Your task to perform on an android device: clear all cookies in the chrome app Image 0: 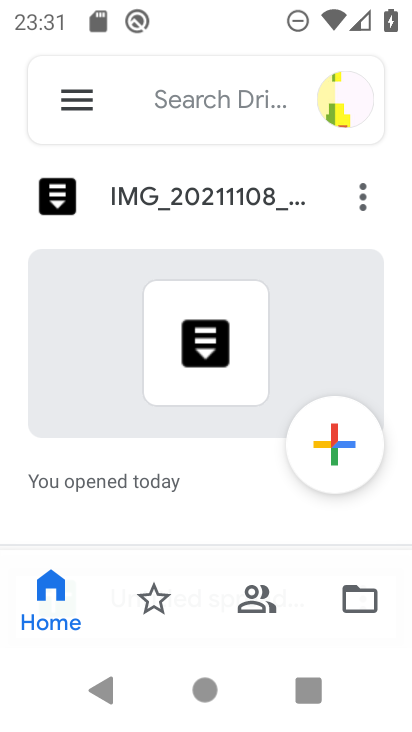
Step 0: drag from (185, 492) to (260, 120)
Your task to perform on an android device: clear all cookies in the chrome app Image 1: 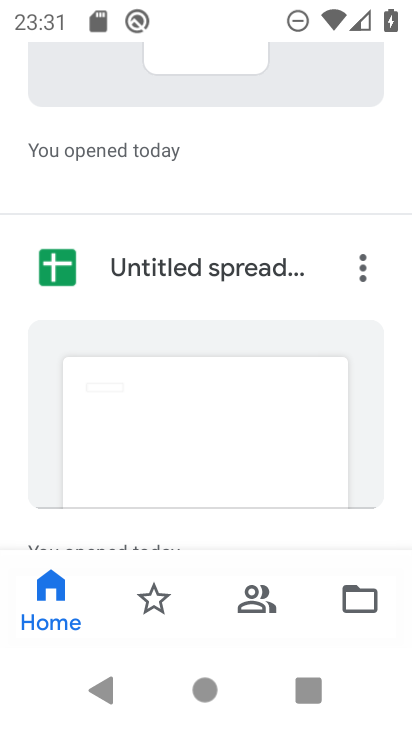
Step 1: press home button
Your task to perform on an android device: clear all cookies in the chrome app Image 2: 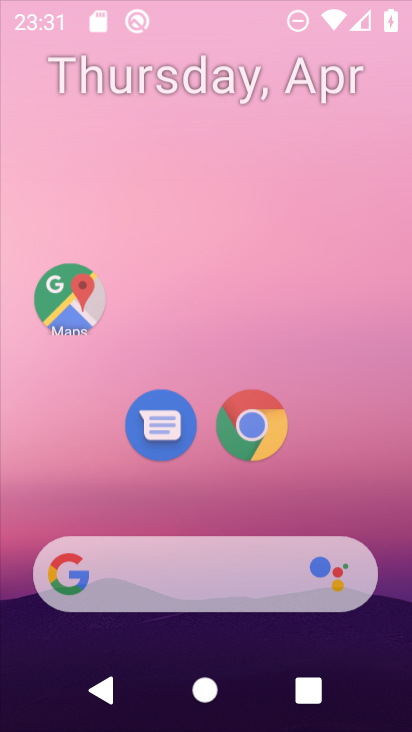
Step 2: drag from (187, 533) to (147, 46)
Your task to perform on an android device: clear all cookies in the chrome app Image 3: 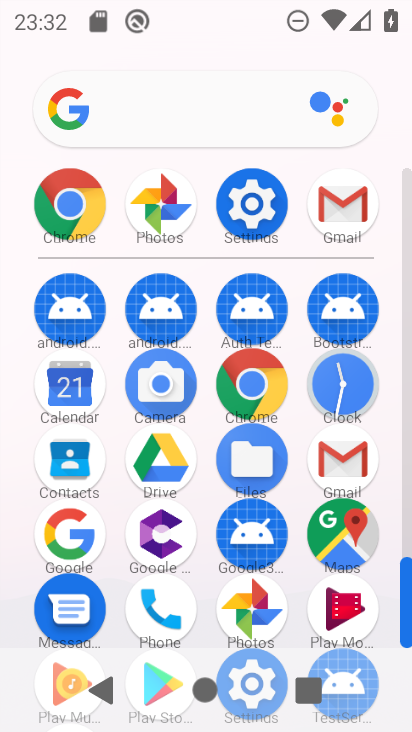
Step 3: click (252, 375)
Your task to perform on an android device: clear all cookies in the chrome app Image 4: 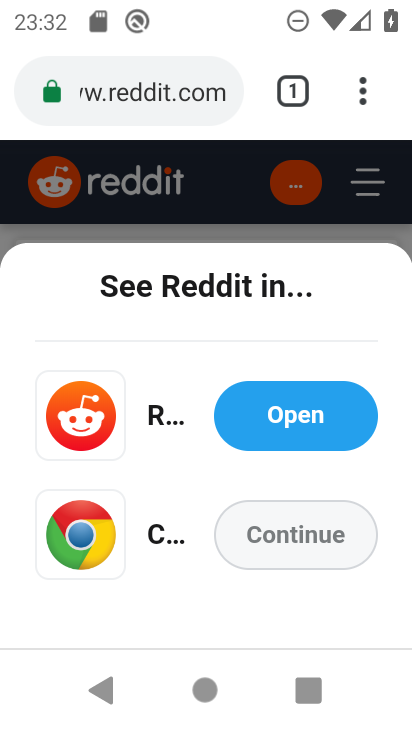
Step 4: drag from (360, 93) to (91, 264)
Your task to perform on an android device: clear all cookies in the chrome app Image 5: 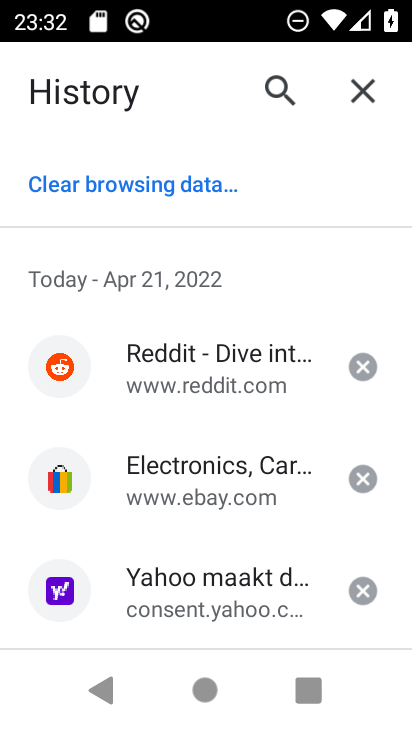
Step 5: click (159, 192)
Your task to perform on an android device: clear all cookies in the chrome app Image 6: 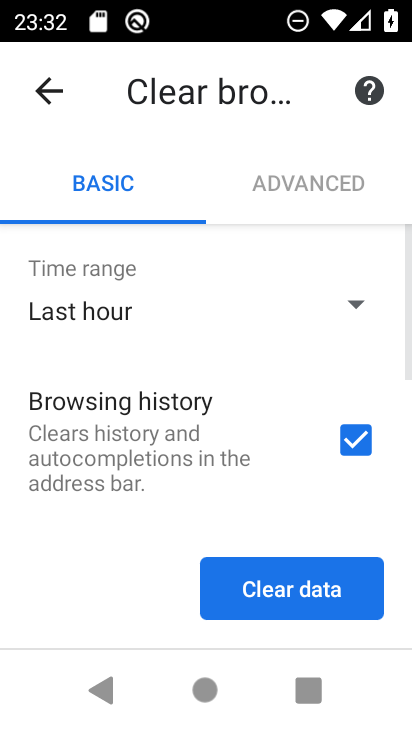
Step 6: drag from (273, 439) to (331, 204)
Your task to perform on an android device: clear all cookies in the chrome app Image 7: 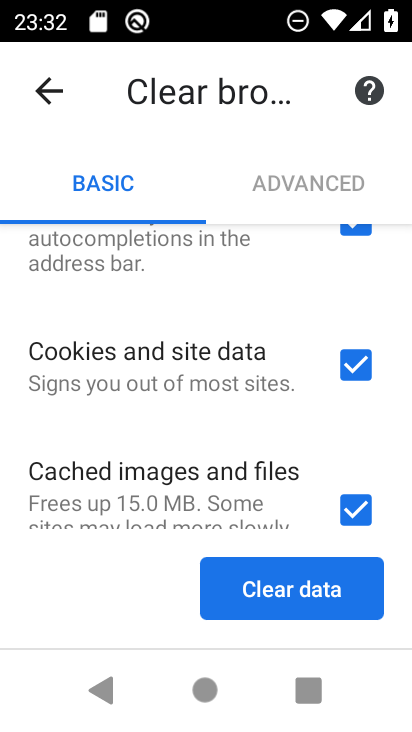
Step 7: click (353, 233)
Your task to perform on an android device: clear all cookies in the chrome app Image 8: 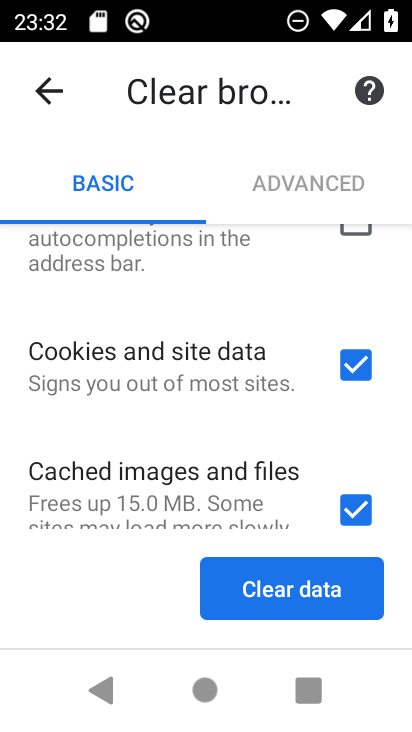
Step 8: click (356, 490)
Your task to perform on an android device: clear all cookies in the chrome app Image 9: 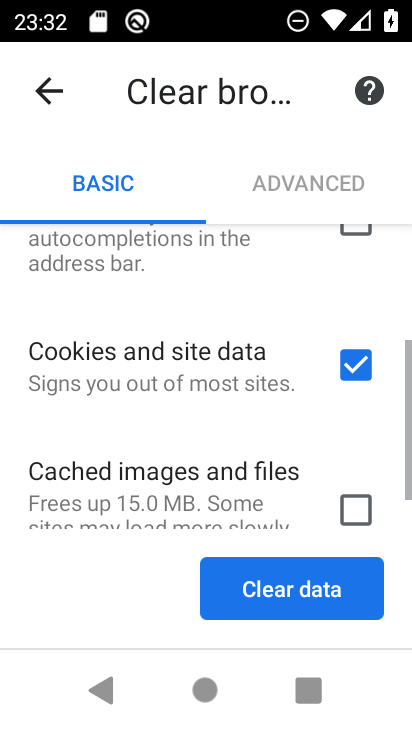
Step 9: click (304, 566)
Your task to perform on an android device: clear all cookies in the chrome app Image 10: 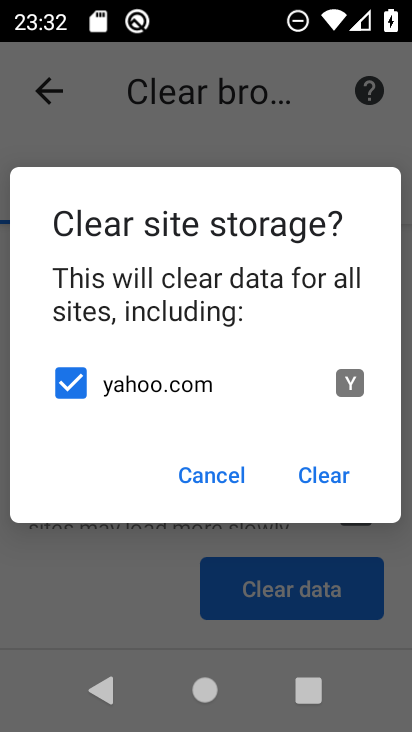
Step 10: click (313, 467)
Your task to perform on an android device: clear all cookies in the chrome app Image 11: 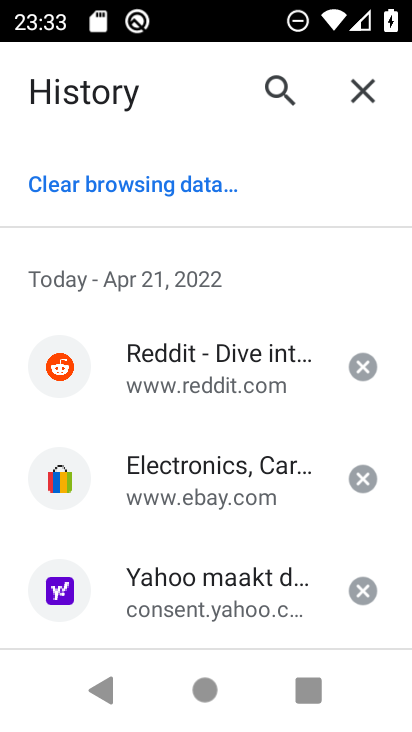
Step 11: task complete